Your task to perform on an android device: see sites visited before in the chrome app Image 0: 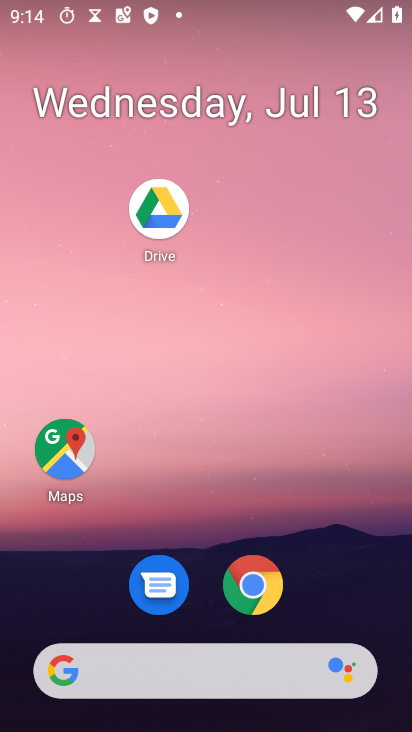
Step 0: click (249, 594)
Your task to perform on an android device: see sites visited before in the chrome app Image 1: 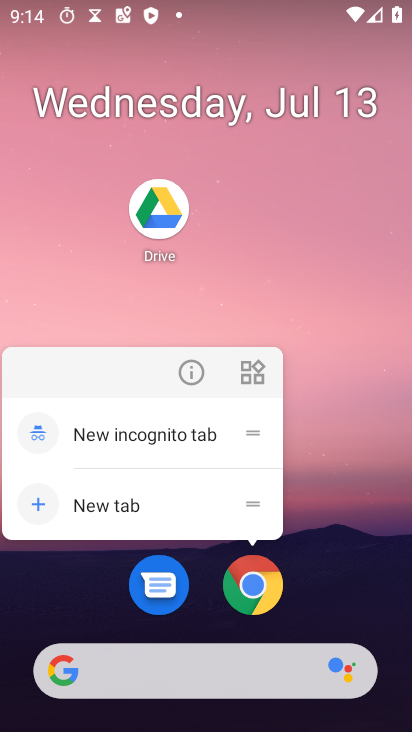
Step 1: click (260, 582)
Your task to perform on an android device: see sites visited before in the chrome app Image 2: 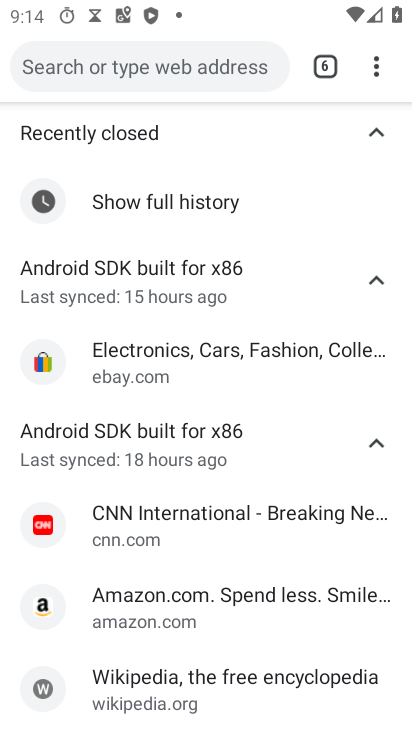
Step 2: task complete